Your task to perform on an android device: delete a single message in the gmail app Image 0: 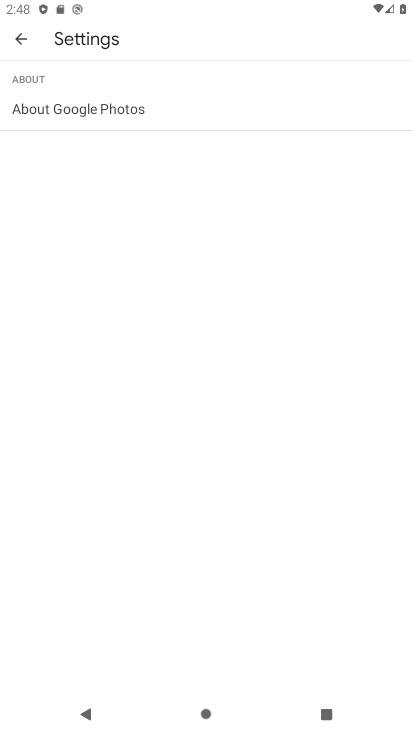
Step 0: press home button
Your task to perform on an android device: delete a single message in the gmail app Image 1: 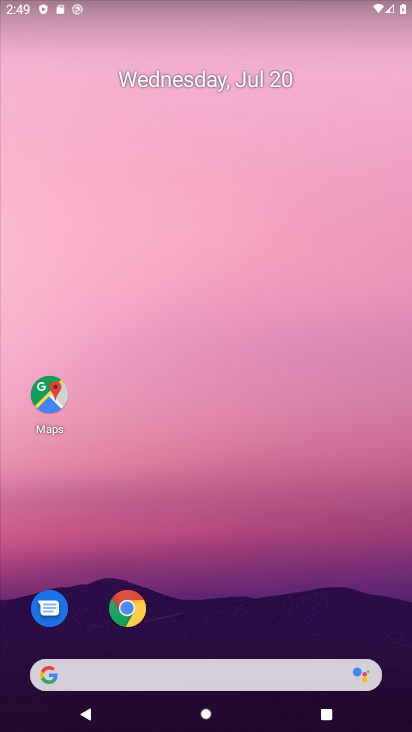
Step 1: drag from (276, 583) to (190, 86)
Your task to perform on an android device: delete a single message in the gmail app Image 2: 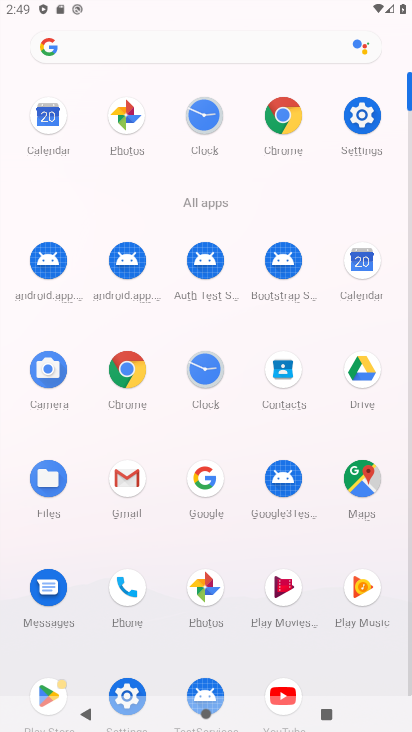
Step 2: click (126, 474)
Your task to perform on an android device: delete a single message in the gmail app Image 3: 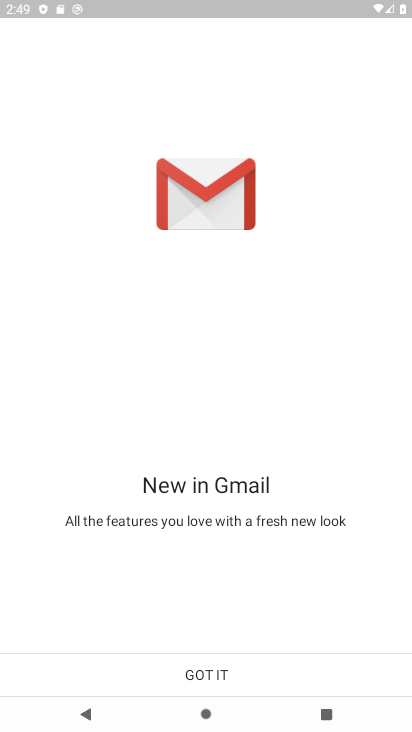
Step 3: click (215, 665)
Your task to perform on an android device: delete a single message in the gmail app Image 4: 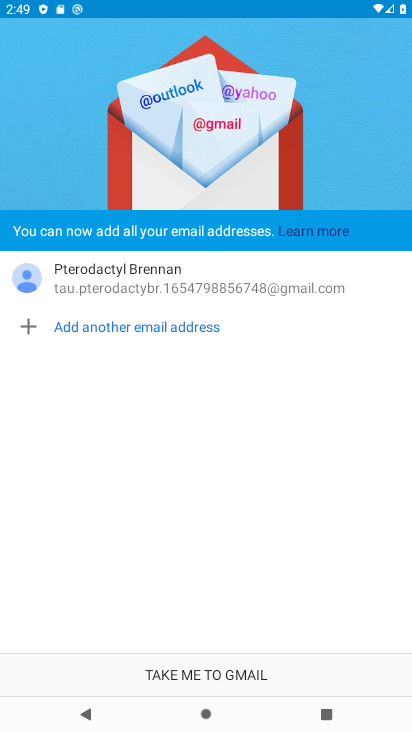
Step 4: click (226, 671)
Your task to perform on an android device: delete a single message in the gmail app Image 5: 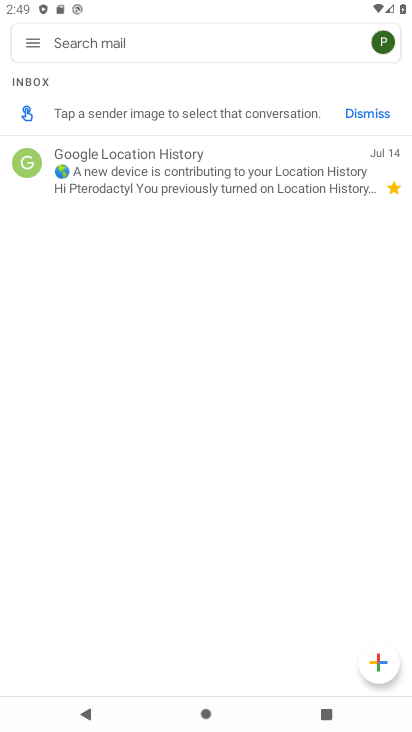
Step 5: click (149, 153)
Your task to perform on an android device: delete a single message in the gmail app Image 6: 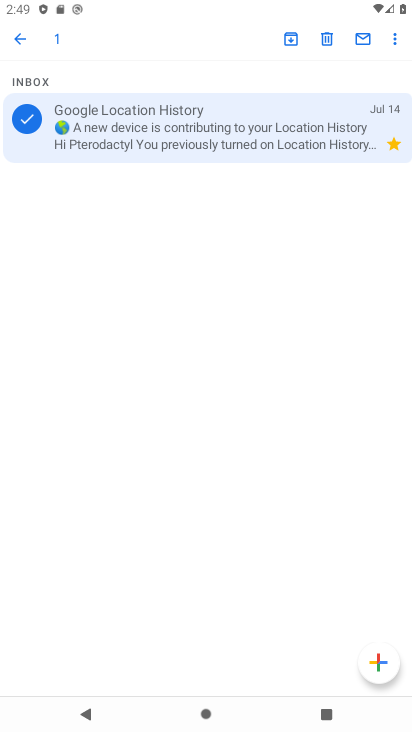
Step 6: click (323, 38)
Your task to perform on an android device: delete a single message in the gmail app Image 7: 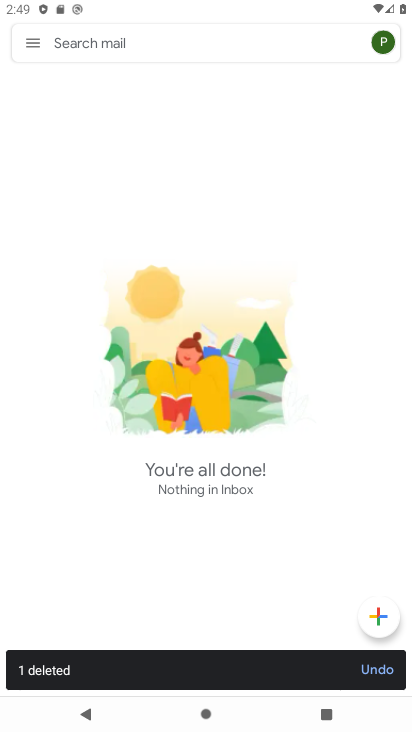
Step 7: task complete